Your task to perform on an android device: Show me productivity apps on the Play Store Image 0: 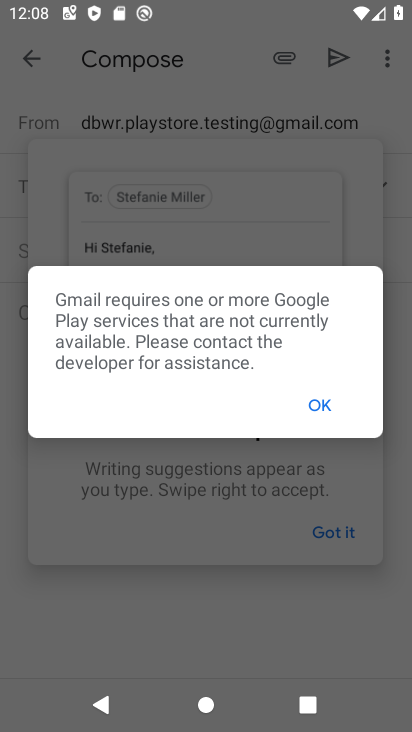
Step 0: press home button
Your task to perform on an android device: Show me productivity apps on the Play Store Image 1: 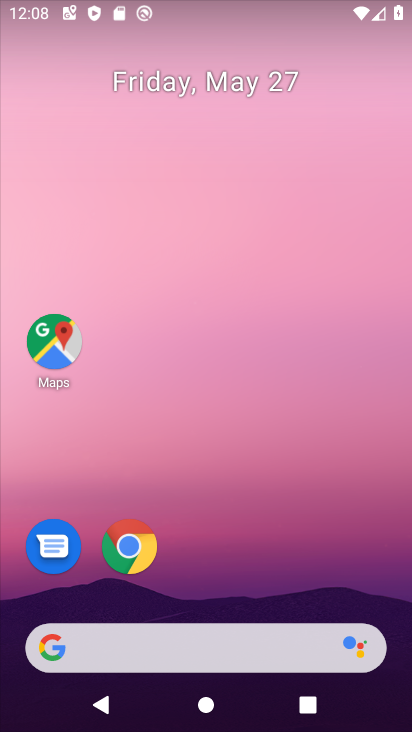
Step 1: drag from (299, 508) to (163, 3)
Your task to perform on an android device: Show me productivity apps on the Play Store Image 2: 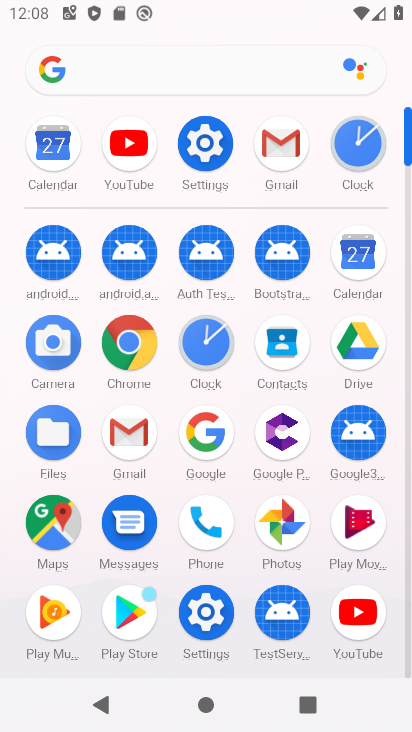
Step 2: click (131, 618)
Your task to perform on an android device: Show me productivity apps on the Play Store Image 3: 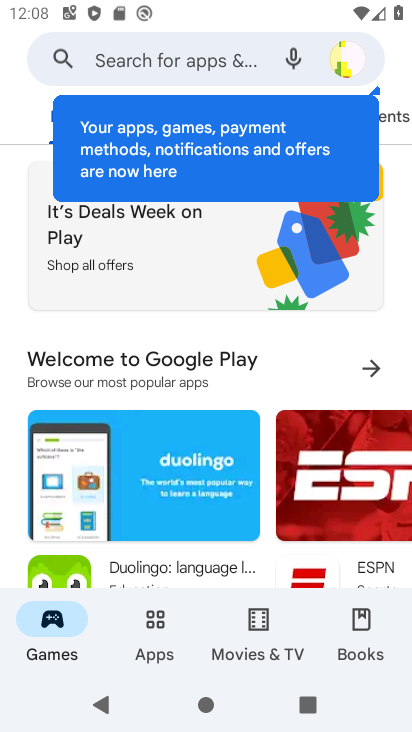
Step 3: click (150, 625)
Your task to perform on an android device: Show me productivity apps on the Play Store Image 4: 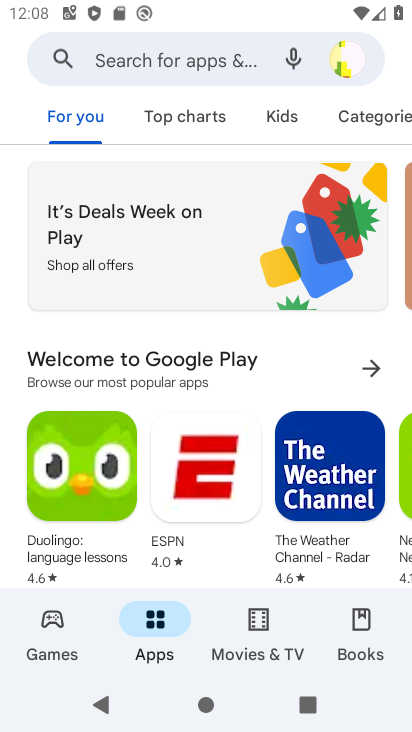
Step 4: task complete